Your task to perform on an android device: clear all cookies in the chrome app Image 0: 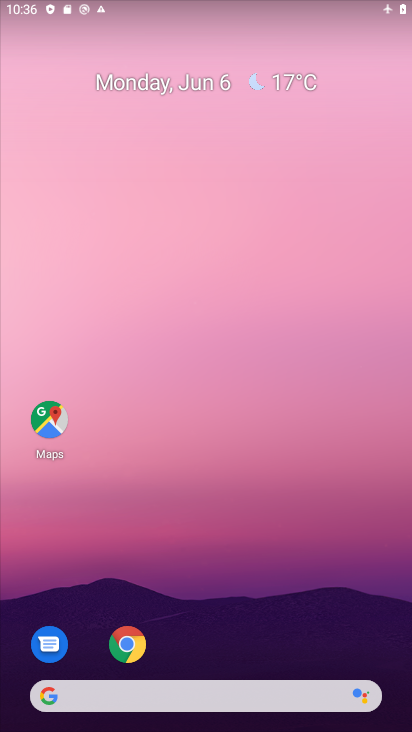
Step 0: press home button
Your task to perform on an android device: clear all cookies in the chrome app Image 1: 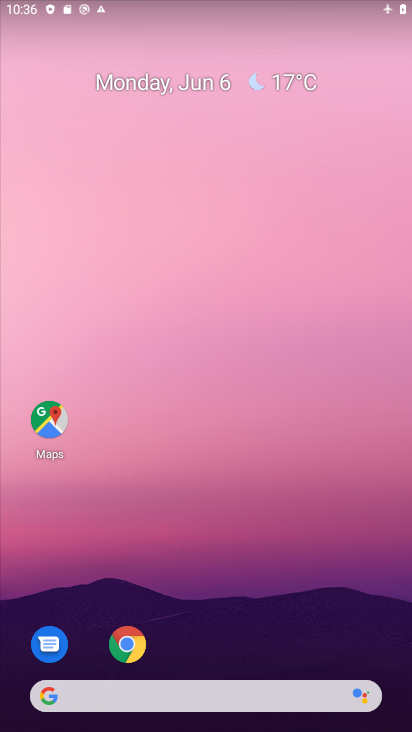
Step 1: click (121, 650)
Your task to perform on an android device: clear all cookies in the chrome app Image 2: 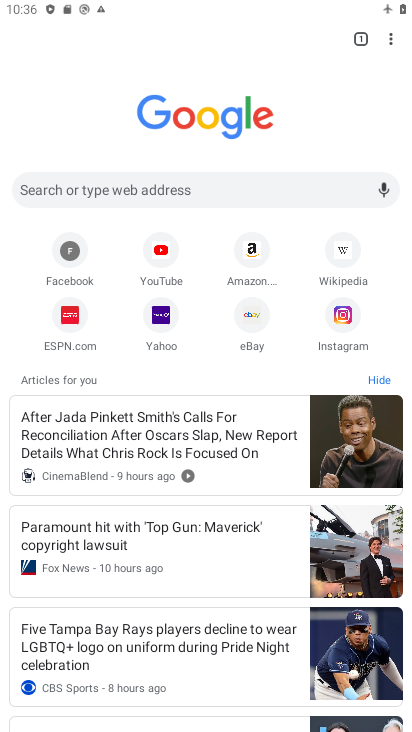
Step 2: drag from (383, 43) to (257, 318)
Your task to perform on an android device: clear all cookies in the chrome app Image 3: 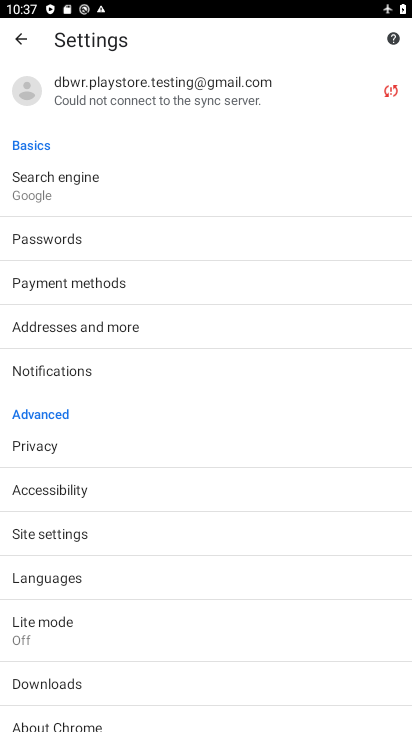
Step 3: click (82, 435)
Your task to perform on an android device: clear all cookies in the chrome app Image 4: 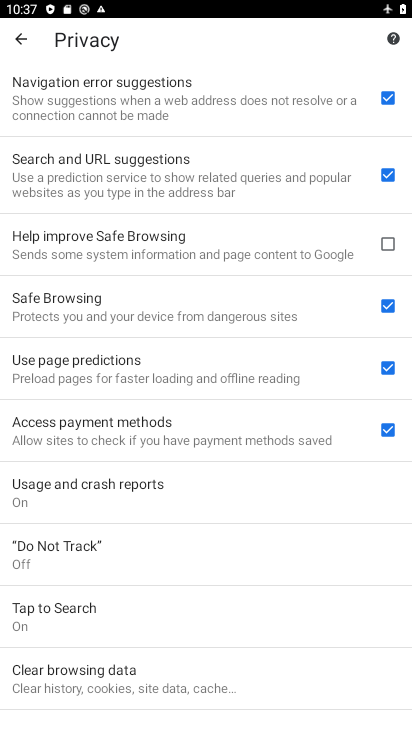
Step 4: click (140, 666)
Your task to perform on an android device: clear all cookies in the chrome app Image 5: 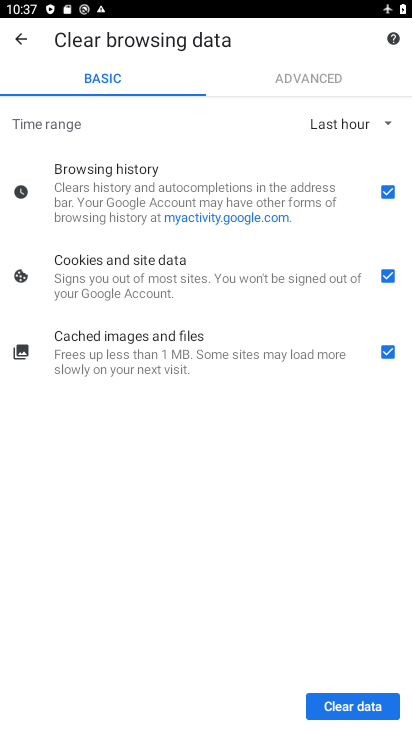
Step 5: click (341, 709)
Your task to perform on an android device: clear all cookies in the chrome app Image 6: 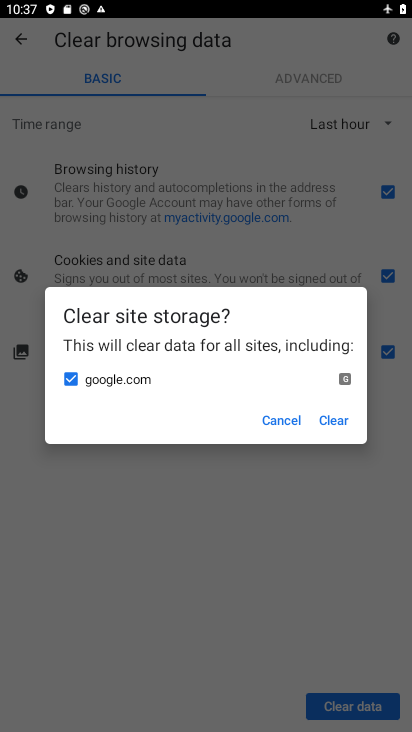
Step 6: click (333, 408)
Your task to perform on an android device: clear all cookies in the chrome app Image 7: 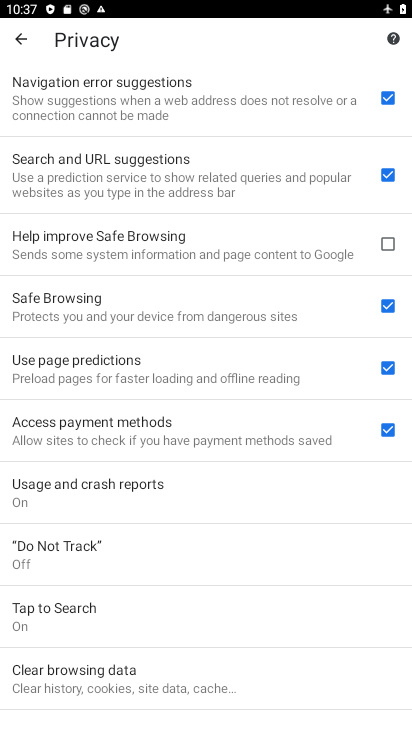
Step 7: task complete